Your task to perform on an android device: Open location settings Image 0: 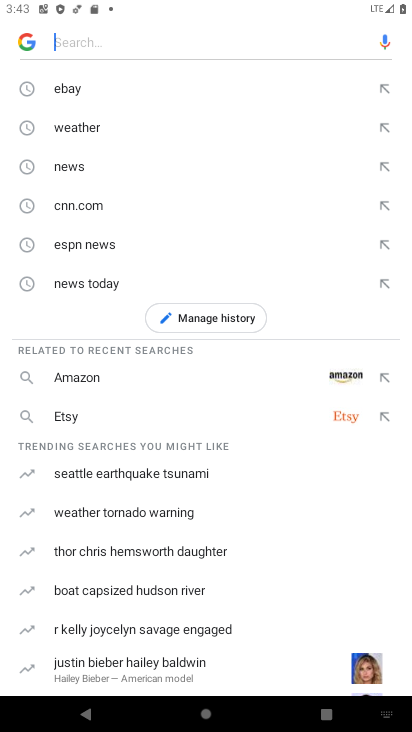
Step 0: press home button
Your task to perform on an android device: Open location settings Image 1: 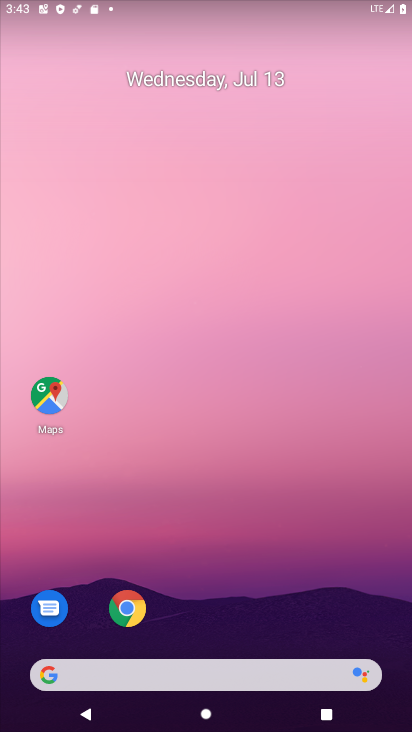
Step 1: drag from (192, 690) to (234, 225)
Your task to perform on an android device: Open location settings Image 2: 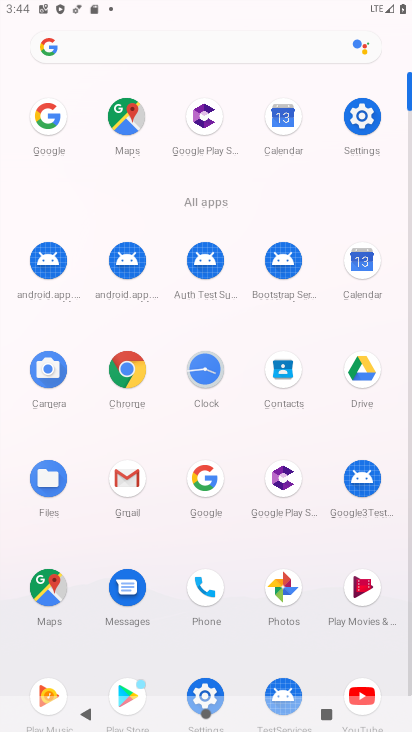
Step 2: click (192, 689)
Your task to perform on an android device: Open location settings Image 3: 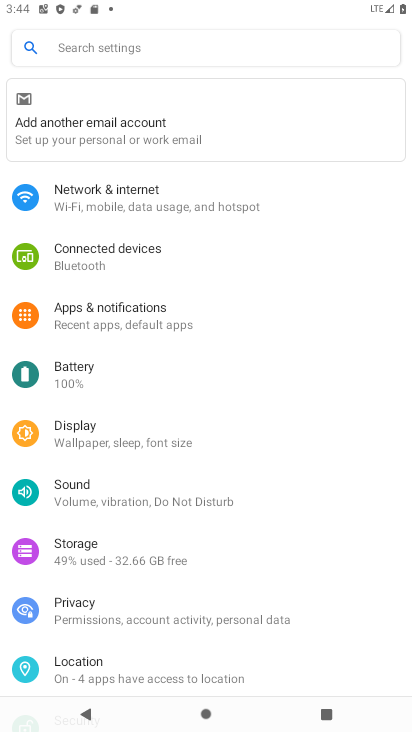
Step 3: click (123, 679)
Your task to perform on an android device: Open location settings Image 4: 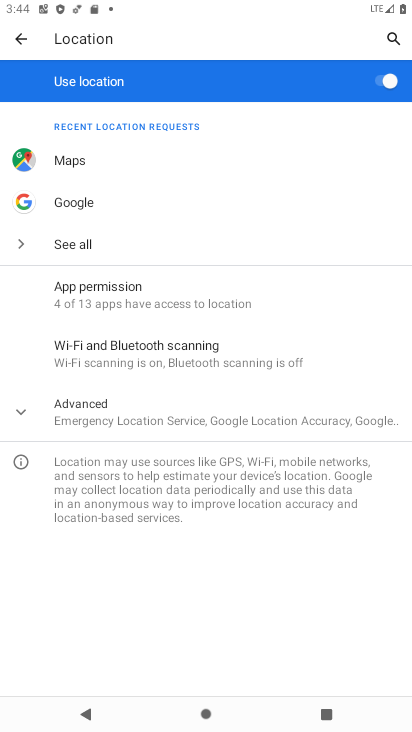
Step 4: task complete